Your task to perform on an android device: change notification settings in the gmail app Image 0: 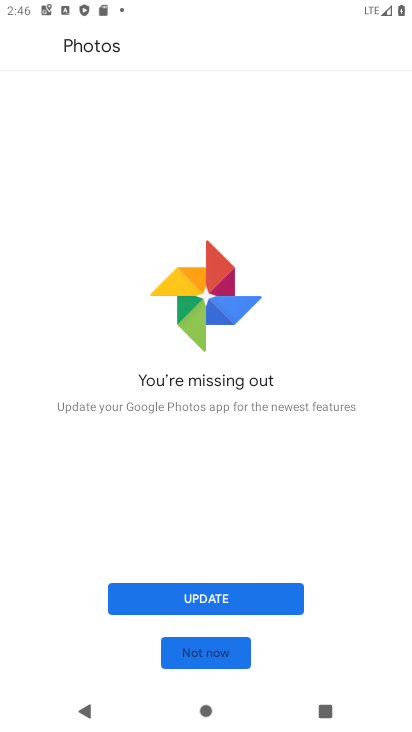
Step 0: press home button
Your task to perform on an android device: change notification settings in the gmail app Image 1: 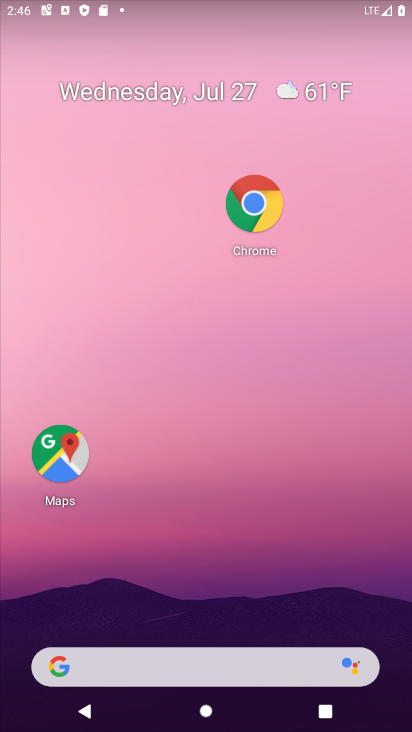
Step 1: drag from (187, 596) to (264, 121)
Your task to perform on an android device: change notification settings in the gmail app Image 2: 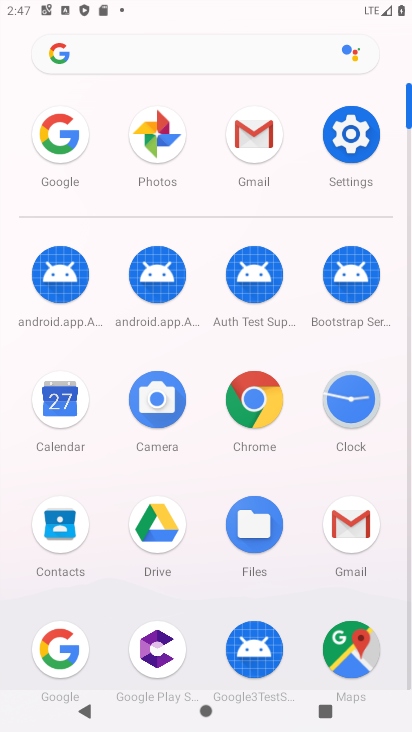
Step 2: click (246, 121)
Your task to perform on an android device: change notification settings in the gmail app Image 3: 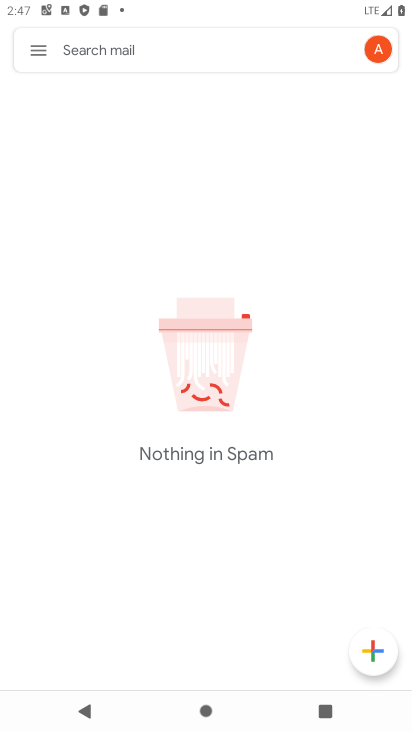
Step 3: click (37, 45)
Your task to perform on an android device: change notification settings in the gmail app Image 4: 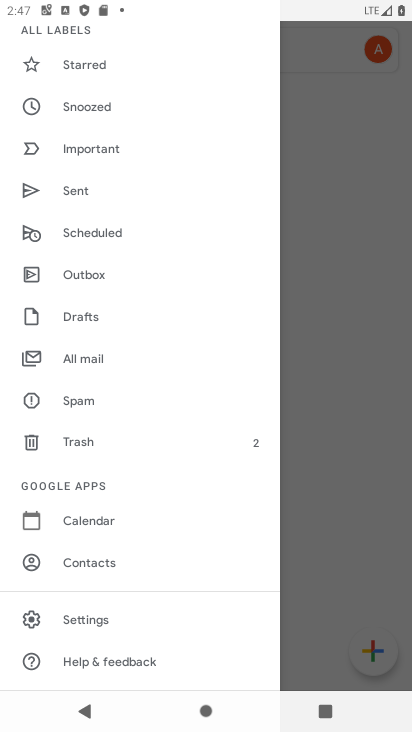
Step 4: click (113, 619)
Your task to perform on an android device: change notification settings in the gmail app Image 5: 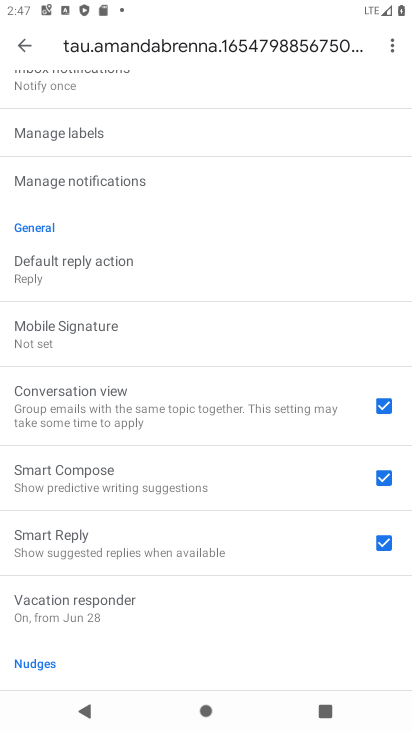
Step 5: click (137, 172)
Your task to perform on an android device: change notification settings in the gmail app Image 6: 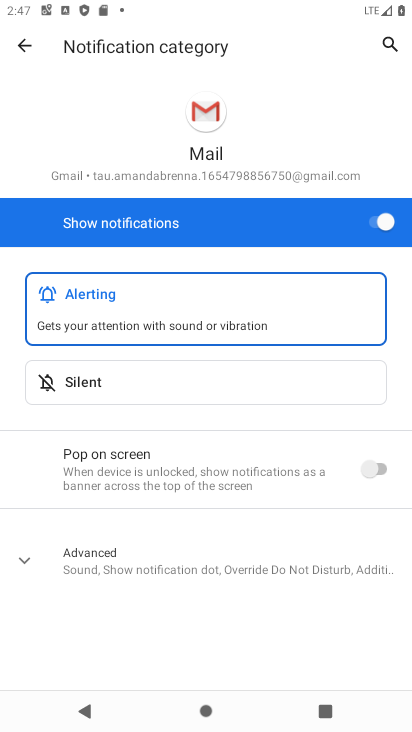
Step 6: click (362, 225)
Your task to perform on an android device: change notification settings in the gmail app Image 7: 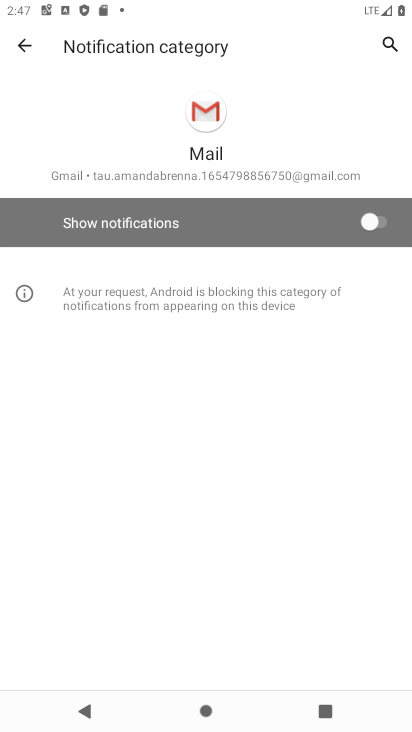
Step 7: task complete